Your task to perform on an android device: toggle show notifications on the lock screen Image 0: 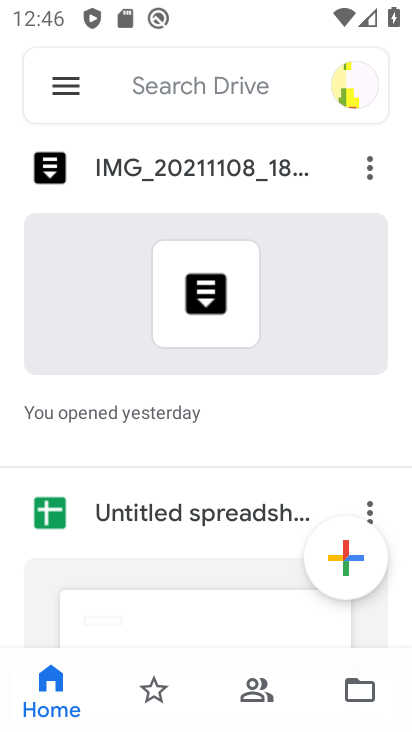
Step 0: press home button
Your task to perform on an android device: toggle show notifications on the lock screen Image 1: 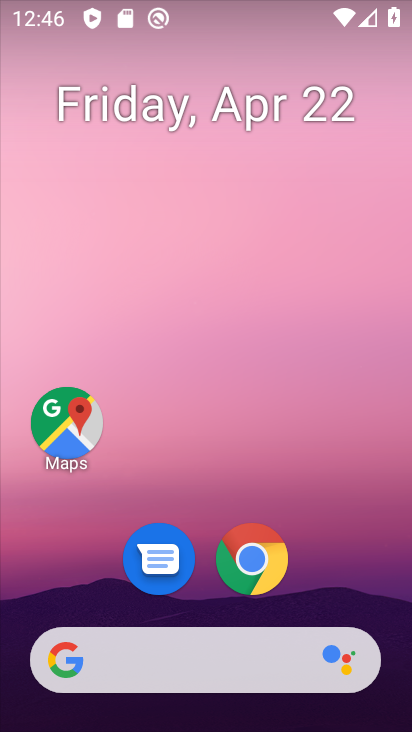
Step 1: drag from (334, 597) to (281, 79)
Your task to perform on an android device: toggle show notifications on the lock screen Image 2: 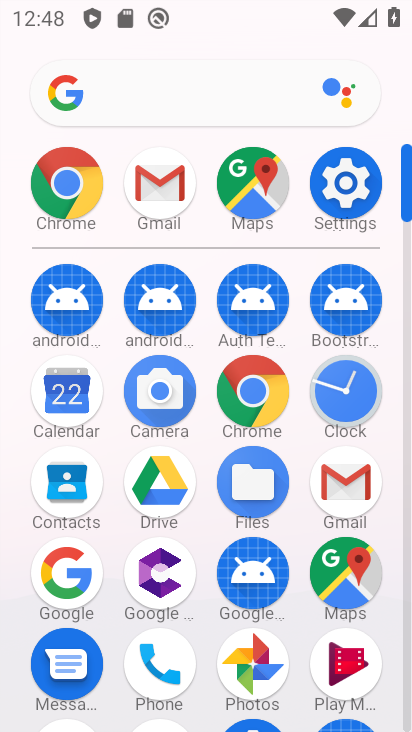
Step 2: click (337, 192)
Your task to perform on an android device: toggle show notifications on the lock screen Image 3: 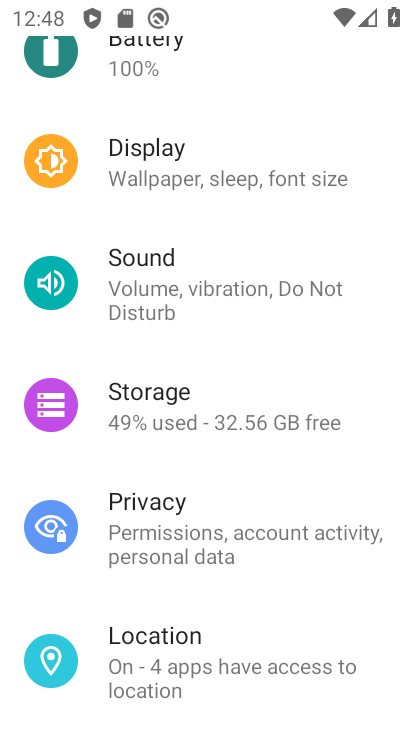
Step 3: drag from (287, 264) to (314, 559)
Your task to perform on an android device: toggle show notifications on the lock screen Image 4: 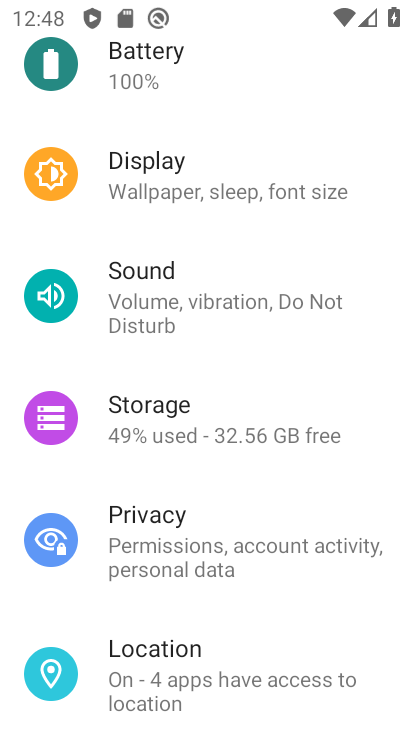
Step 4: drag from (269, 229) to (348, 611)
Your task to perform on an android device: toggle show notifications on the lock screen Image 5: 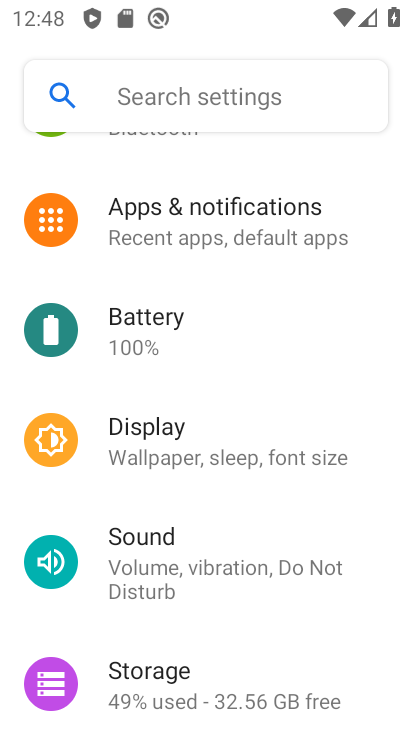
Step 5: click (206, 231)
Your task to perform on an android device: toggle show notifications on the lock screen Image 6: 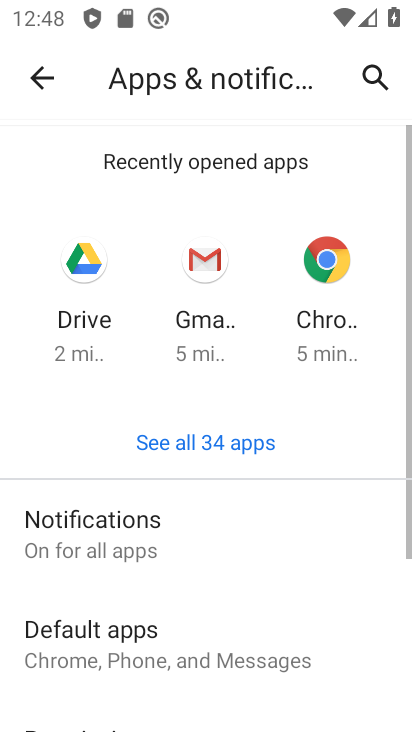
Step 6: click (190, 554)
Your task to perform on an android device: toggle show notifications on the lock screen Image 7: 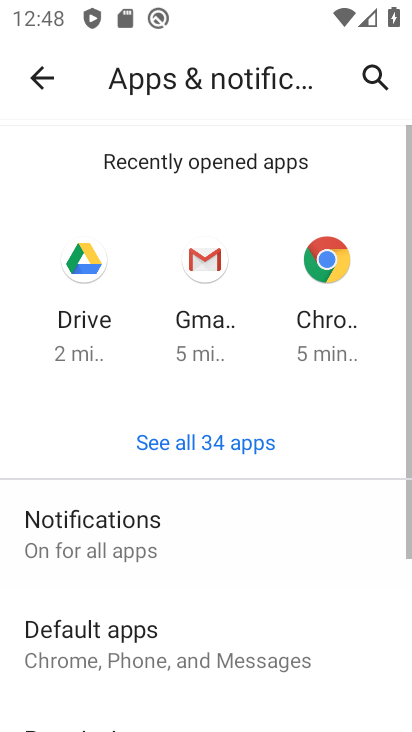
Step 7: drag from (180, 605) to (213, 235)
Your task to perform on an android device: toggle show notifications on the lock screen Image 8: 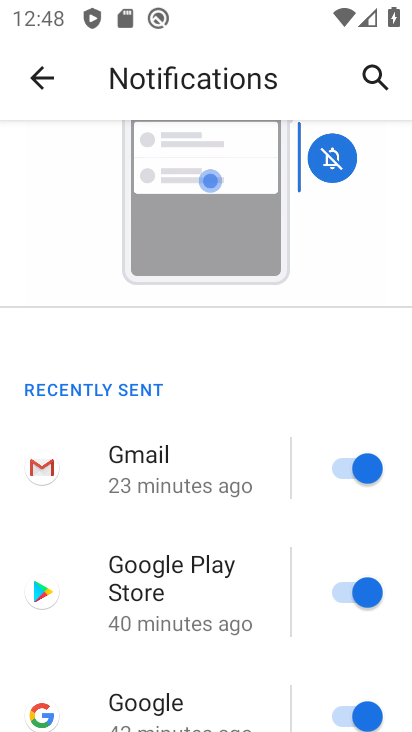
Step 8: drag from (199, 631) to (221, 84)
Your task to perform on an android device: toggle show notifications on the lock screen Image 9: 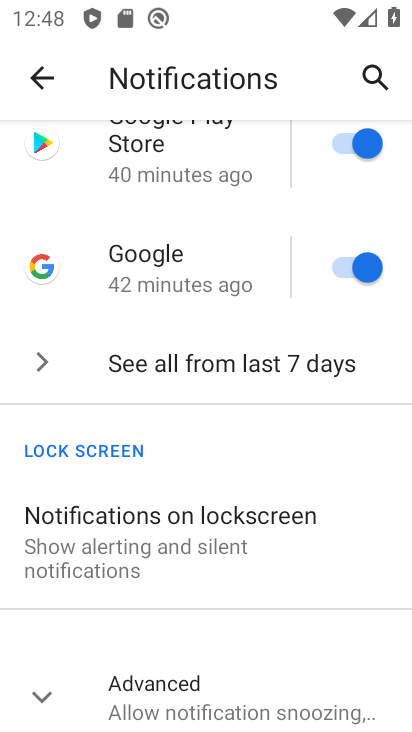
Step 9: click (226, 529)
Your task to perform on an android device: toggle show notifications on the lock screen Image 10: 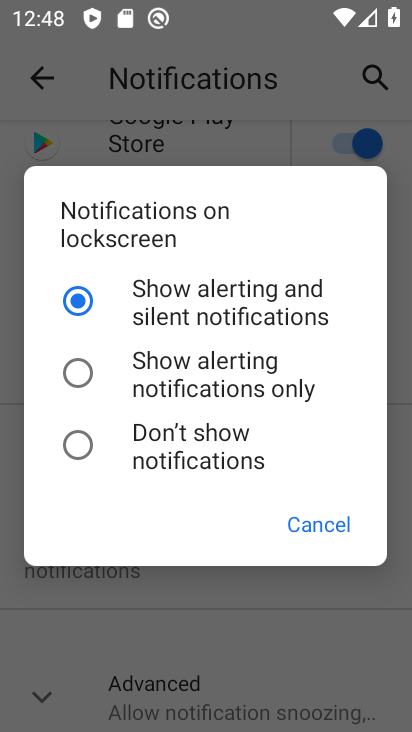
Step 10: click (211, 386)
Your task to perform on an android device: toggle show notifications on the lock screen Image 11: 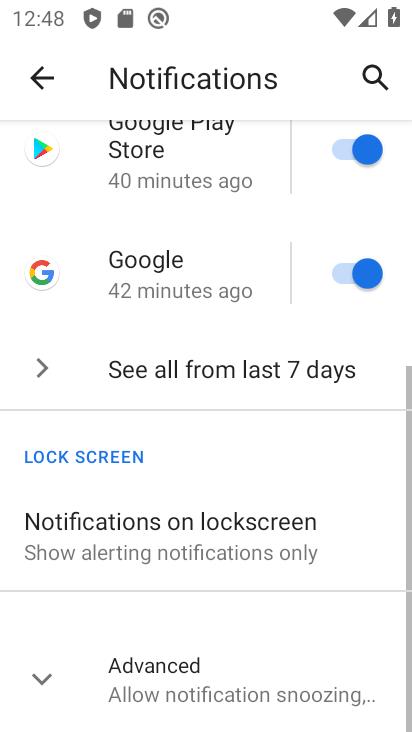
Step 11: task complete